Your task to perform on an android device: turn on the 24-hour format for clock Image 0: 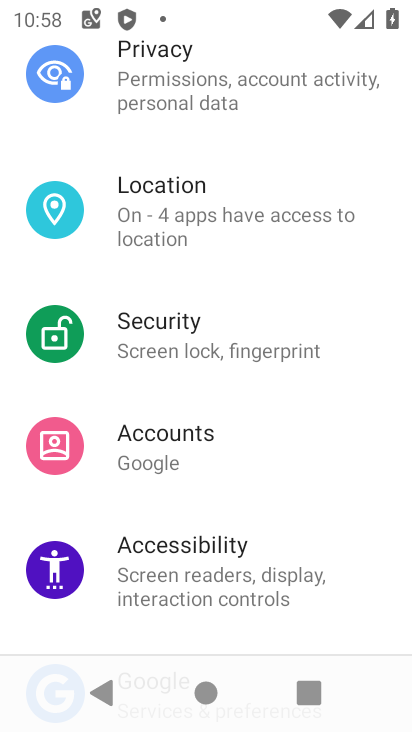
Step 0: press home button
Your task to perform on an android device: turn on the 24-hour format for clock Image 1: 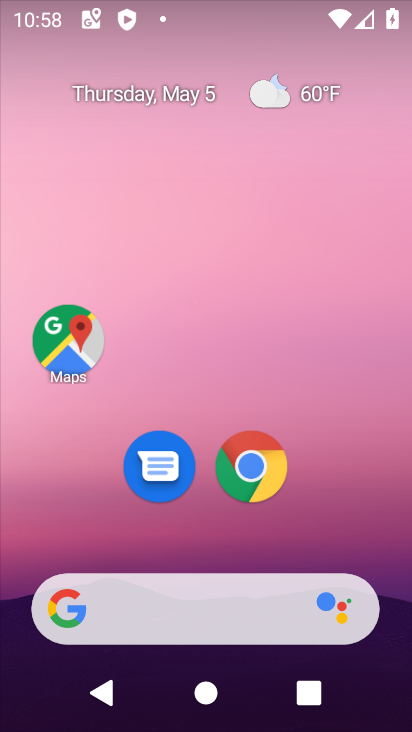
Step 1: drag from (231, 563) to (199, 213)
Your task to perform on an android device: turn on the 24-hour format for clock Image 2: 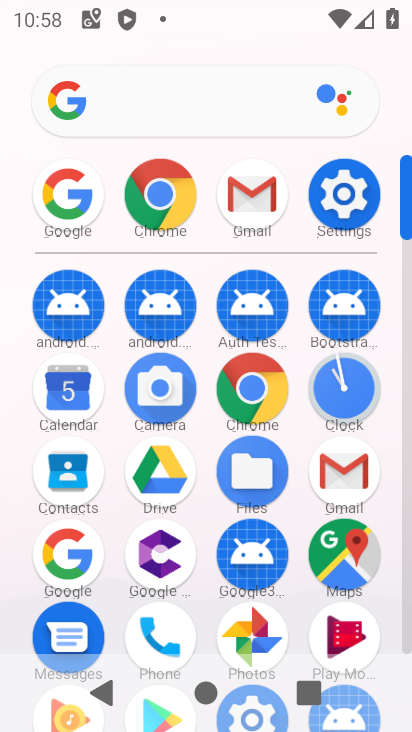
Step 2: click (340, 398)
Your task to perform on an android device: turn on the 24-hour format for clock Image 3: 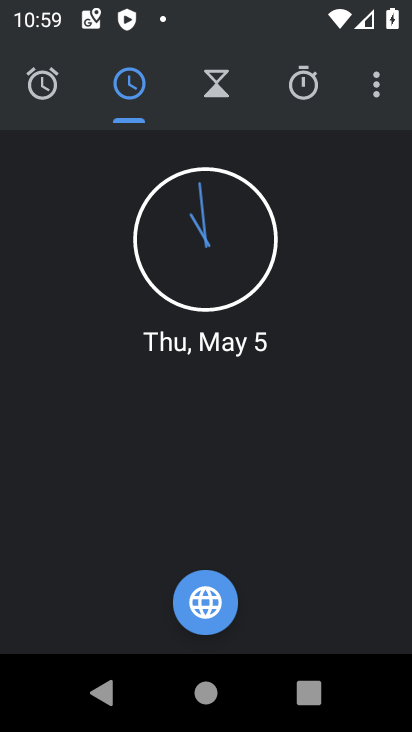
Step 3: click (377, 79)
Your task to perform on an android device: turn on the 24-hour format for clock Image 4: 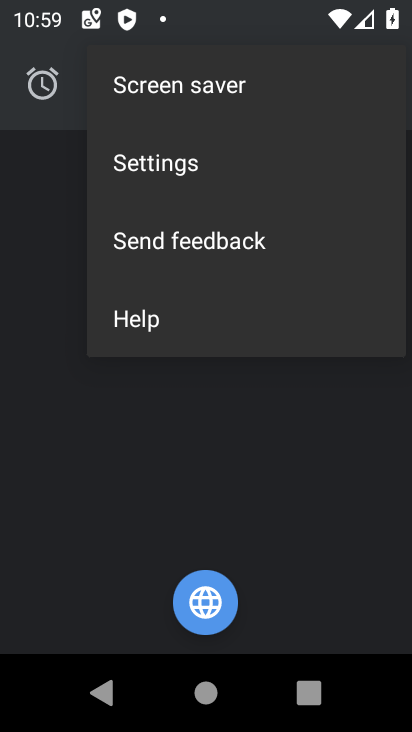
Step 4: click (117, 167)
Your task to perform on an android device: turn on the 24-hour format for clock Image 5: 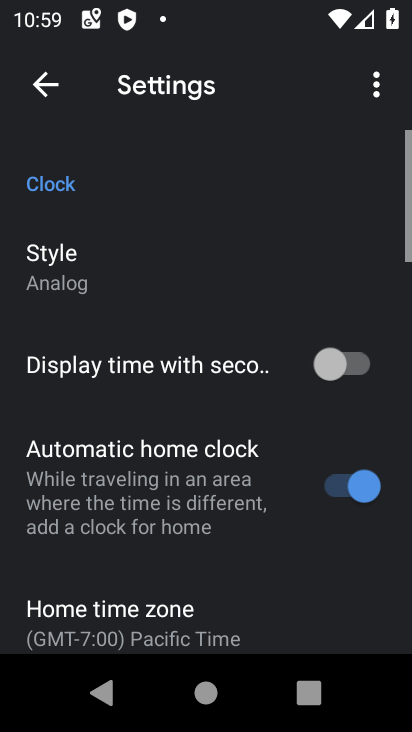
Step 5: drag from (124, 613) to (146, 231)
Your task to perform on an android device: turn on the 24-hour format for clock Image 6: 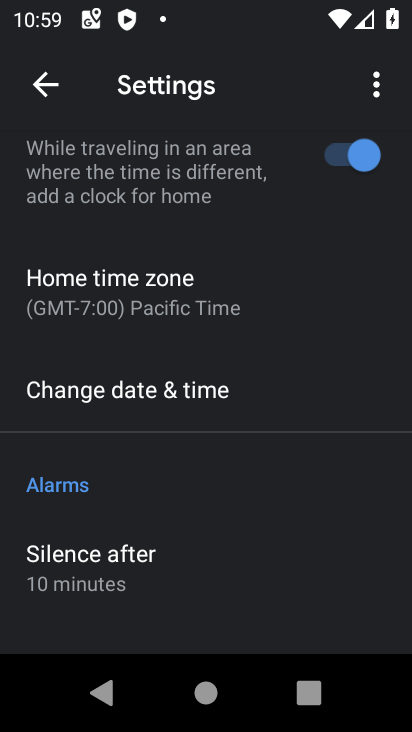
Step 6: click (96, 384)
Your task to perform on an android device: turn on the 24-hour format for clock Image 7: 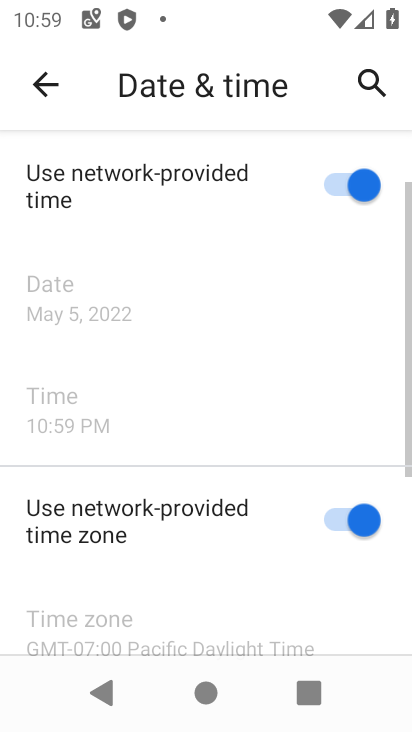
Step 7: drag from (156, 641) to (173, 294)
Your task to perform on an android device: turn on the 24-hour format for clock Image 8: 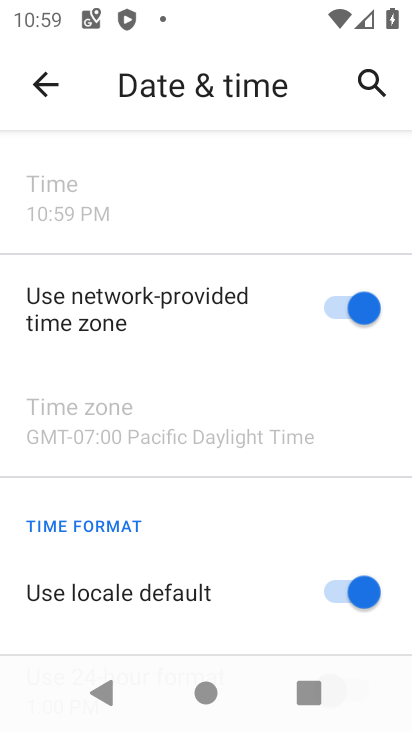
Step 8: drag from (170, 584) to (223, 287)
Your task to perform on an android device: turn on the 24-hour format for clock Image 9: 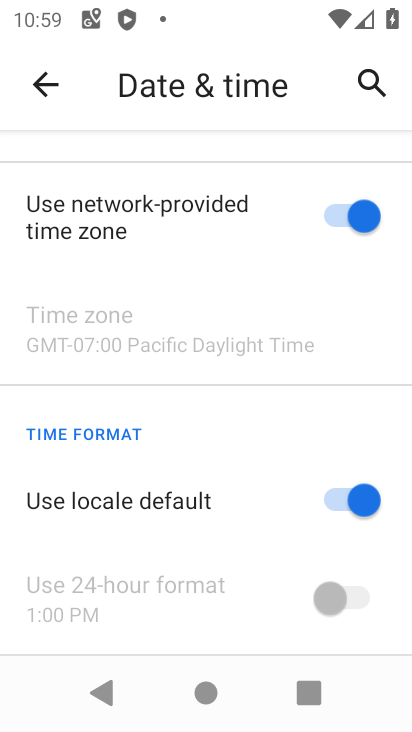
Step 9: drag from (190, 626) to (186, 351)
Your task to perform on an android device: turn on the 24-hour format for clock Image 10: 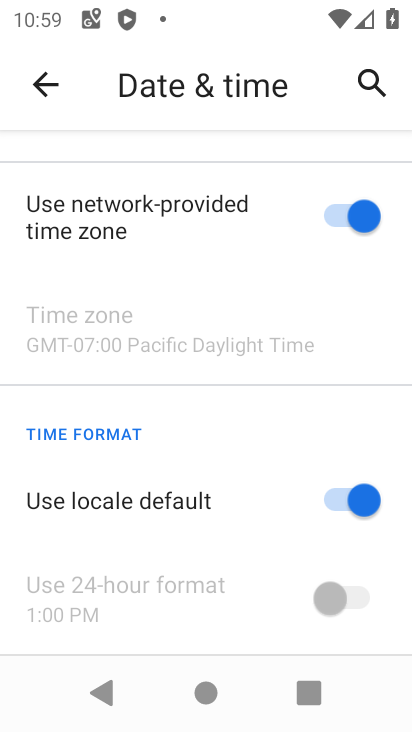
Step 10: click (324, 497)
Your task to perform on an android device: turn on the 24-hour format for clock Image 11: 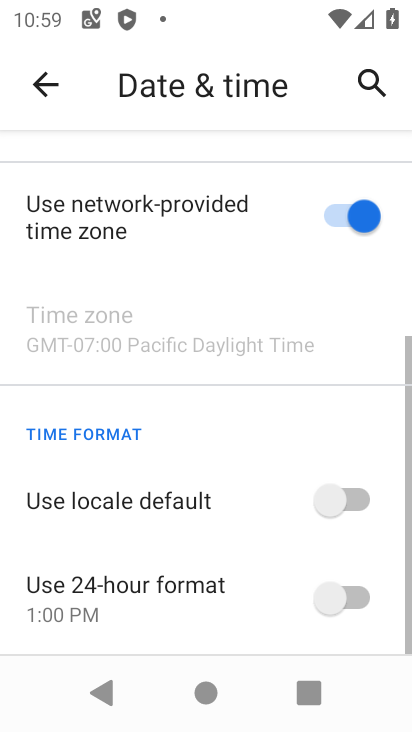
Step 11: click (358, 604)
Your task to perform on an android device: turn on the 24-hour format for clock Image 12: 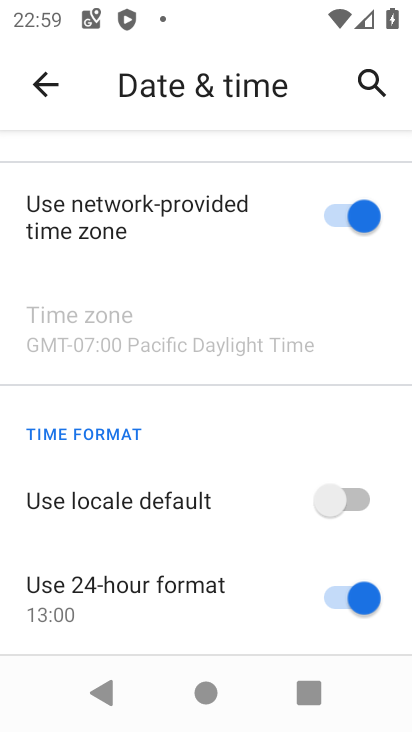
Step 12: task complete